Your task to perform on an android device: Turn off the flashlight Image 0: 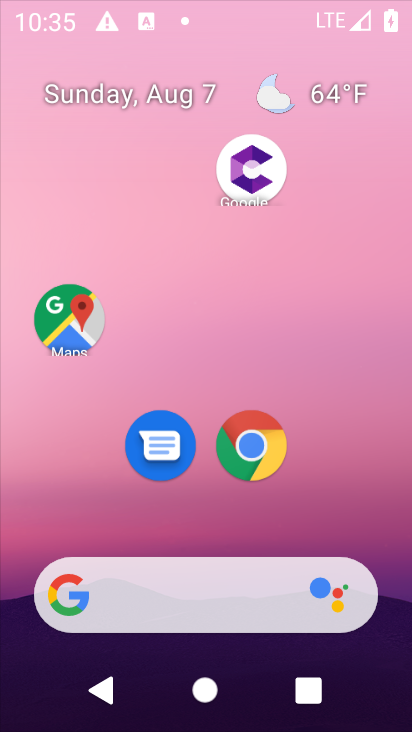
Step 0: press home button
Your task to perform on an android device: Turn off the flashlight Image 1: 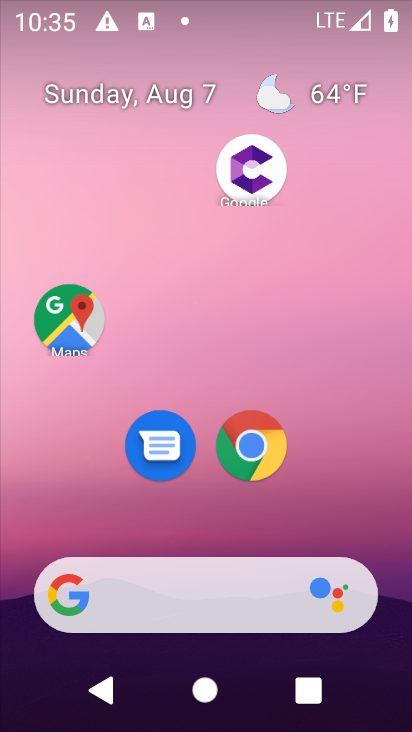
Step 1: drag from (199, 518) to (202, 28)
Your task to perform on an android device: Turn off the flashlight Image 2: 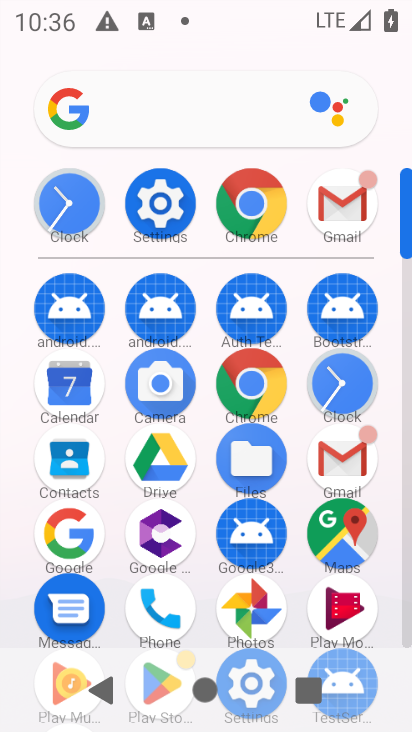
Step 2: click (155, 197)
Your task to perform on an android device: Turn off the flashlight Image 3: 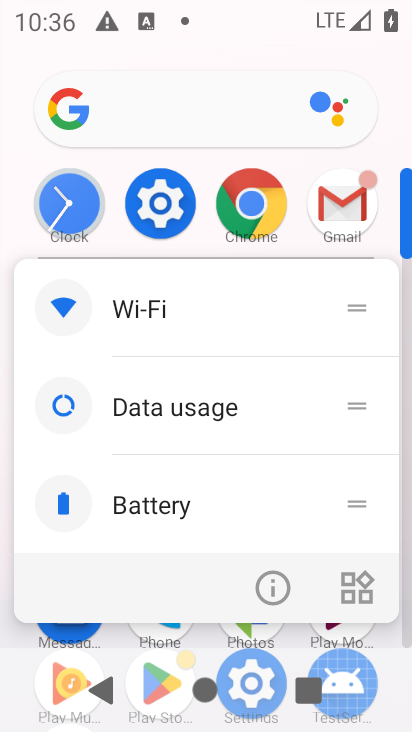
Step 3: click (156, 202)
Your task to perform on an android device: Turn off the flashlight Image 4: 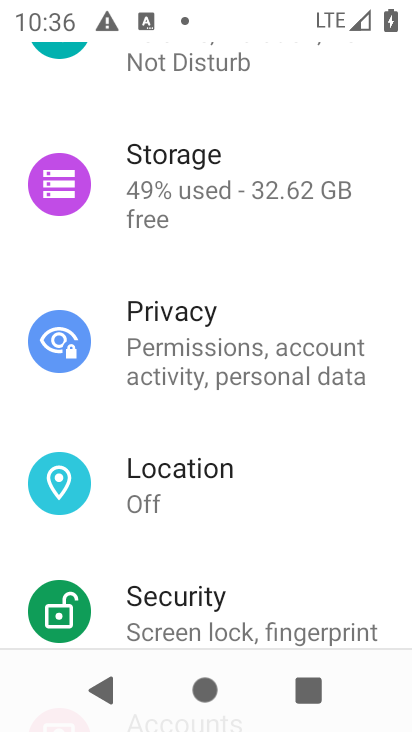
Step 4: drag from (224, 132) to (201, 670)
Your task to perform on an android device: Turn off the flashlight Image 5: 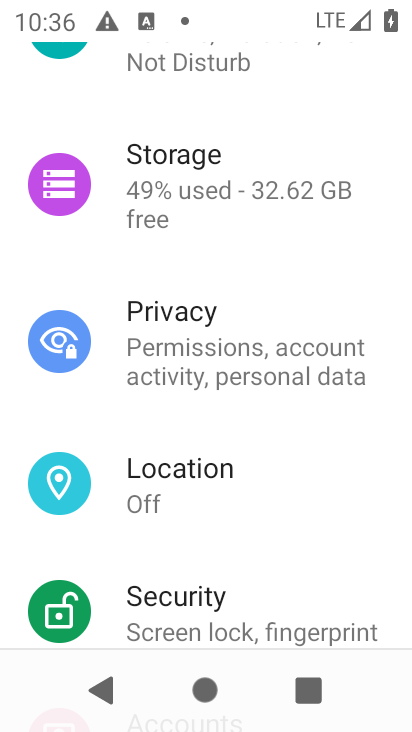
Step 5: drag from (226, 157) to (238, 631)
Your task to perform on an android device: Turn off the flashlight Image 6: 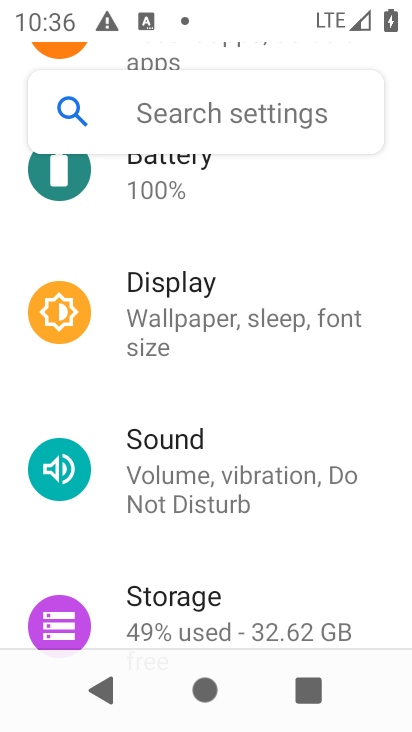
Step 6: click (148, 105)
Your task to perform on an android device: Turn off the flashlight Image 7: 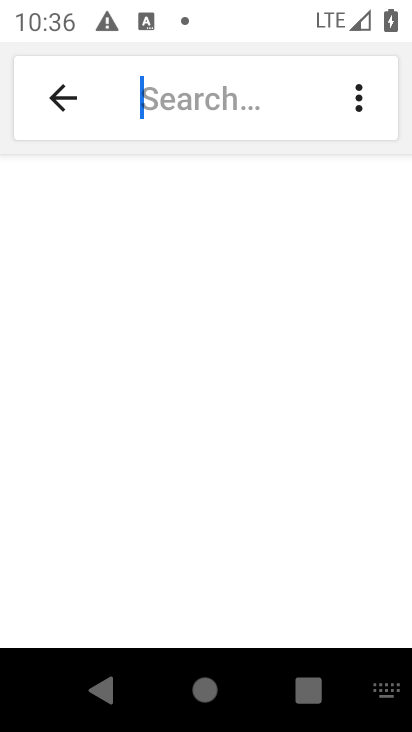
Step 7: type "flashlight"
Your task to perform on an android device: Turn off the flashlight Image 8: 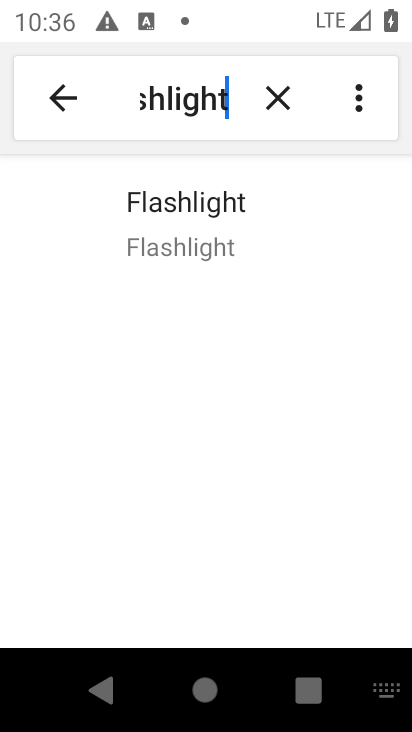
Step 8: click (166, 201)
Your task to perform on an android device: Turn off the flashlight Image 9: 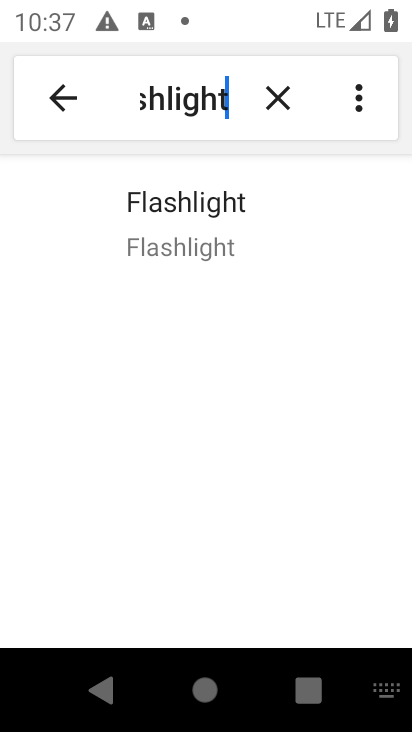
Step 9: click (184, 206)
Your task to perform on an android device: Turn off the flashlight Image 10: 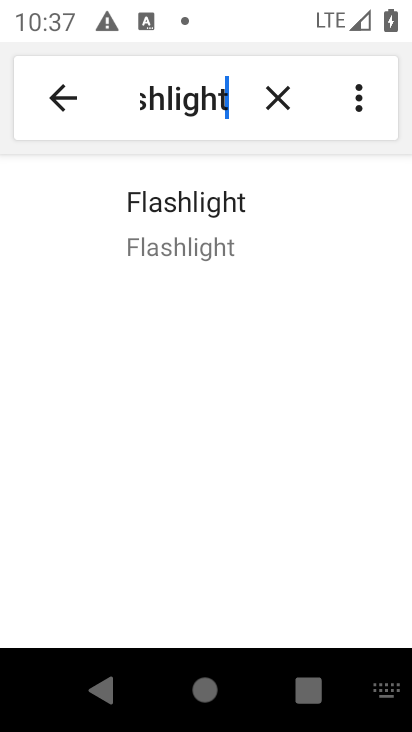
Step 10: task complete